Your task to perform on an android device: Go to accessibility settings Image 0: 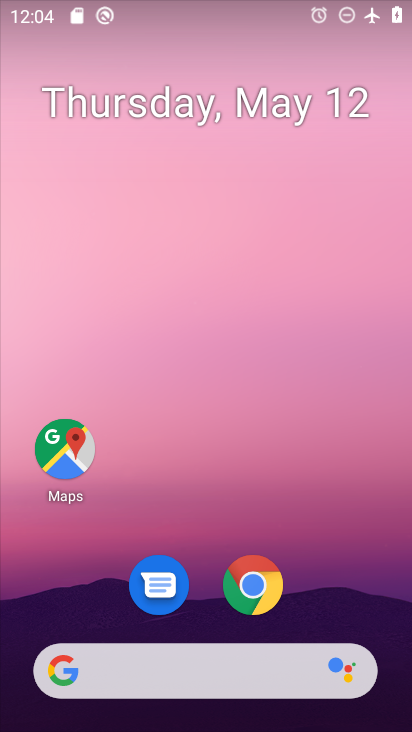
Step 0: drag from (307, 471) to (335, 107)
Your task to perform on an android device: Go to accessibility settings Image 1: 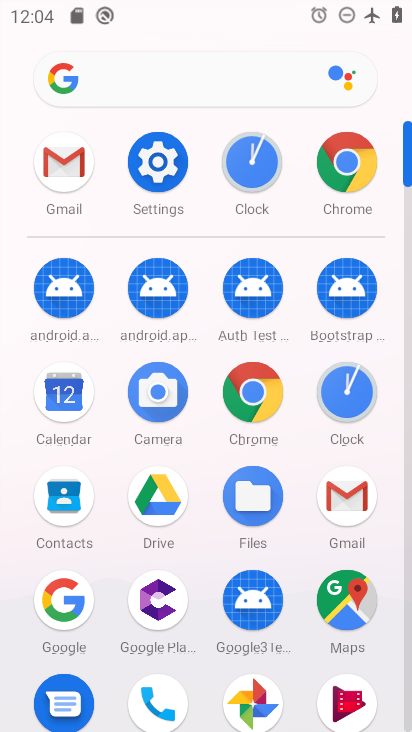
Step 1: click (176, 157)
Your task to perform on an android device: Go to accessibility settings Image 2: 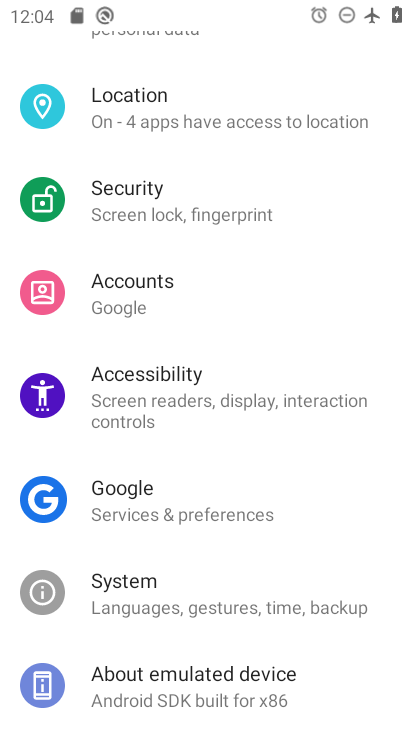
Step 2: click (237, 387)
Your task to perform on an android device: Go to accessibility settings Image 3: 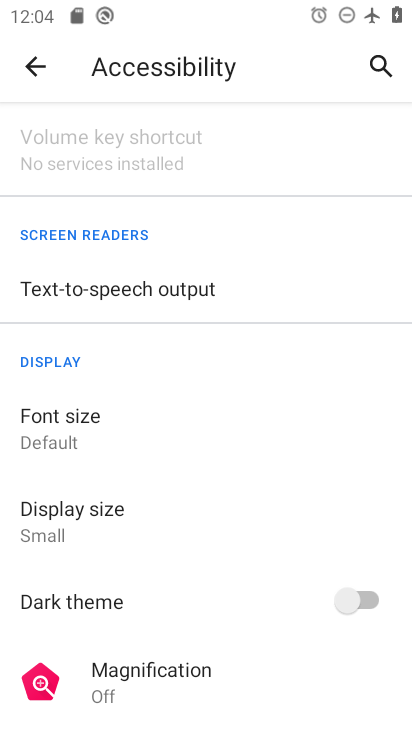
Step 3: task complete